Your task to perform on an android device: Go to network settings Image 0: 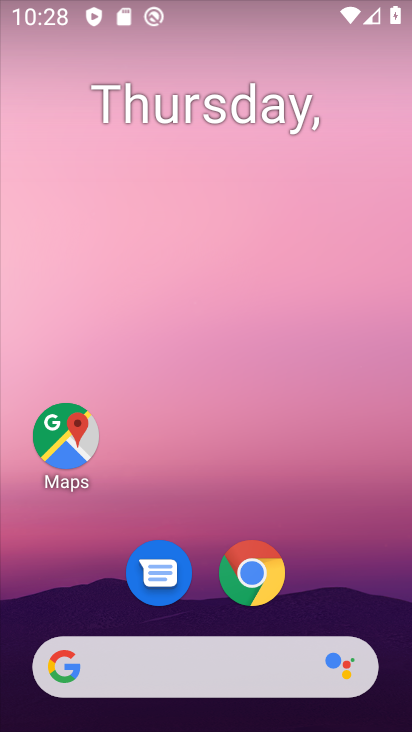
Step 0: drag from (341, 536) to (315, 45)
Your task to perform on an android device: Go to network settings Image 1: 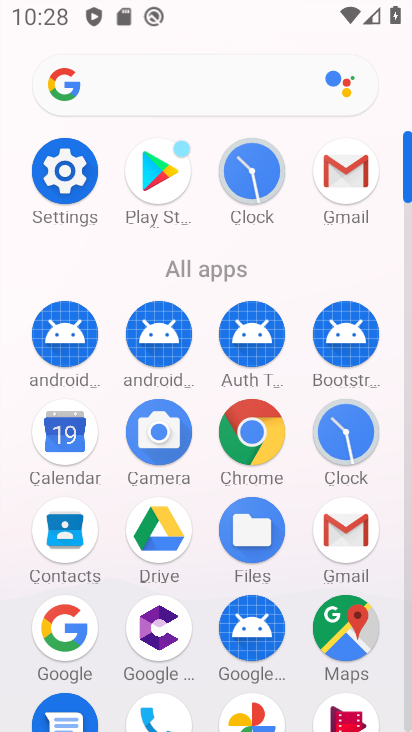
Step 1: click (88, 167)
Your task to perform on an android device: Go to network settings Image 2: 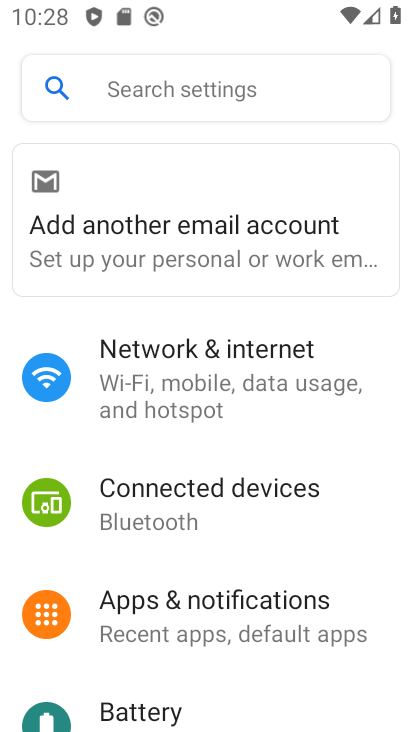
Step 2: click (158, 364)
Your task to perform on an android device: Go to network settings Image 3: 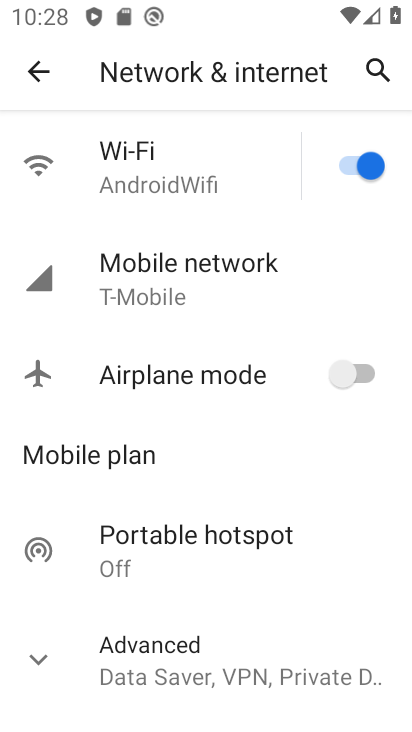
Step 3: task complete